Your task to perform on an android device: Open the Play Movies app and select the watchlist tab. Image 0: 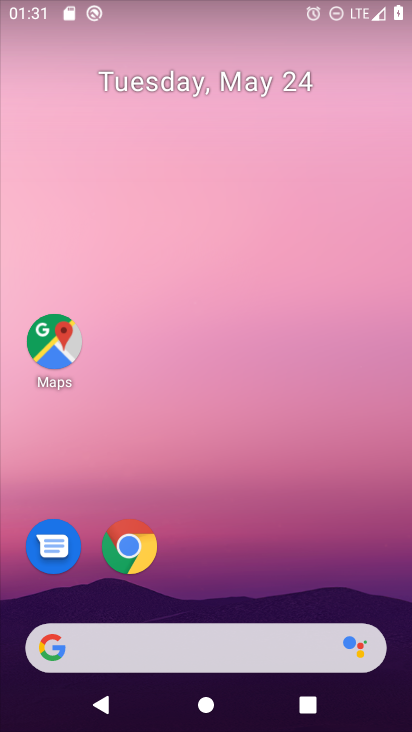
Step 0: drag from (349, 534) to (400, 59)
Your task to perform on an android device: Open the Play Movies app and select the watchlist tab. Image 1: 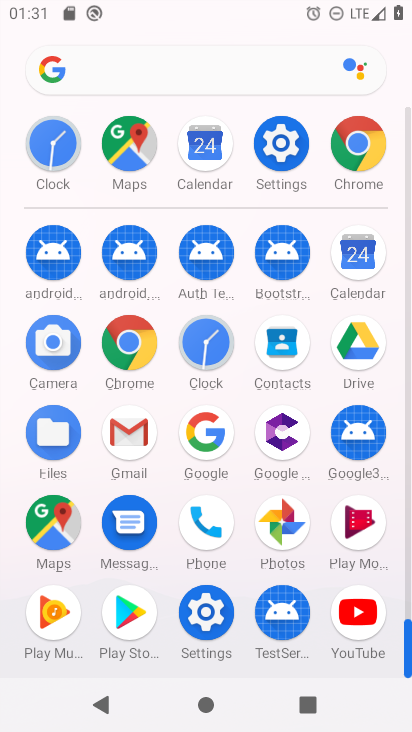
Step 1: click (349, 530)
Your task to perform on an android device: Open the Play Movies app and select the watchlist tab. Image 2: 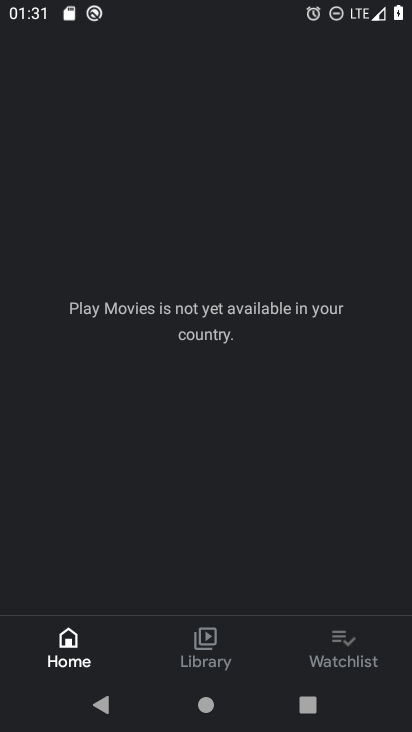
Step 2: click (320, 643)
Your task to perform on an android device: Open the Play Movies app and select the watchlist tab. Image 3: 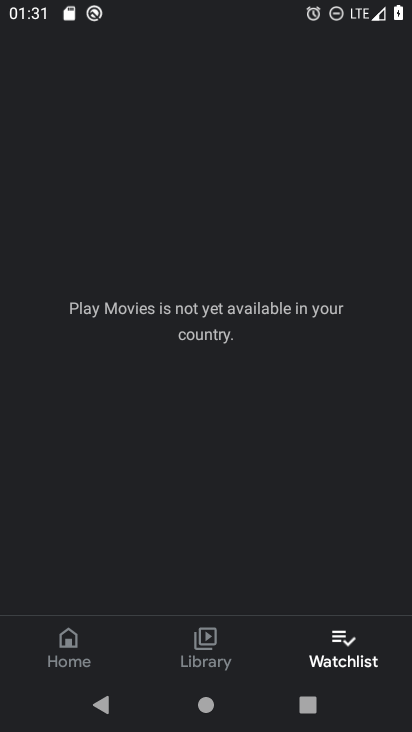
Step 3: task complete